Your task to perform on an android device: delete location history Image 0: 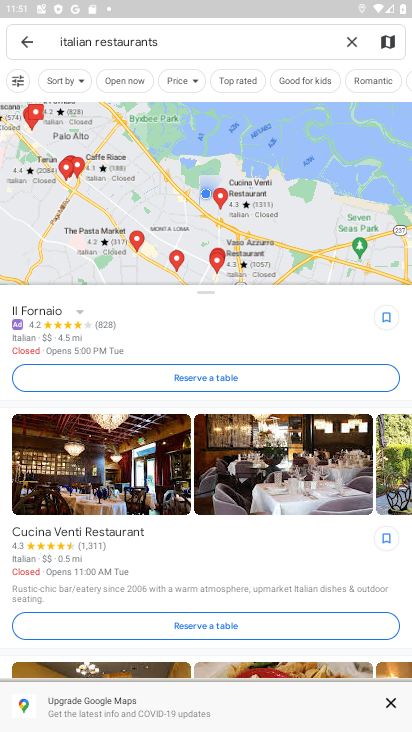
Step 0: click (355, 45)
Your task to perform on an android device: delete location history Image 1: 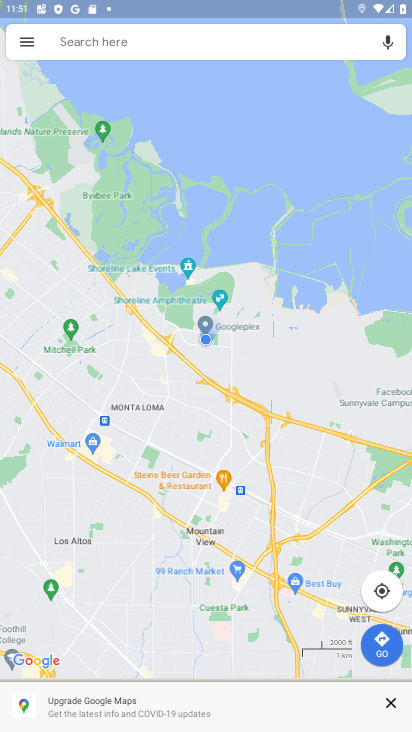
Step 1: click (27, 43)
Your task to perform on an android device: delete location history Image 2: 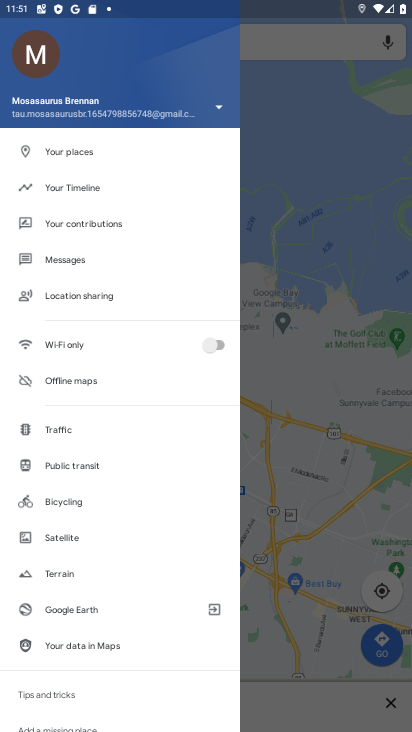
Step 2: click (76, 188)
Your task to perform on an android device: delete location history Image 3: 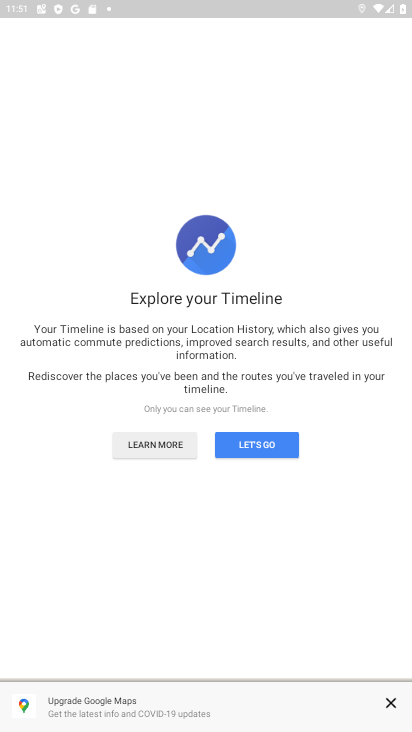
Step 3: click (260, 445)
Your task to perform on an android device: delete location history Image 4: 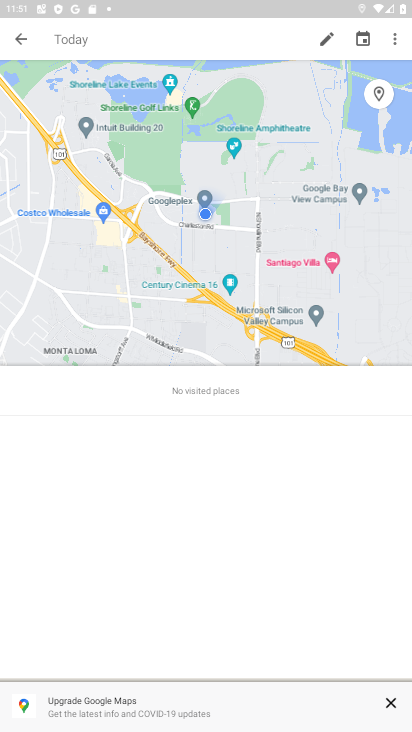
Step 4: click (390, 40)
Your task to perform on an android device: delete location history Image 5: 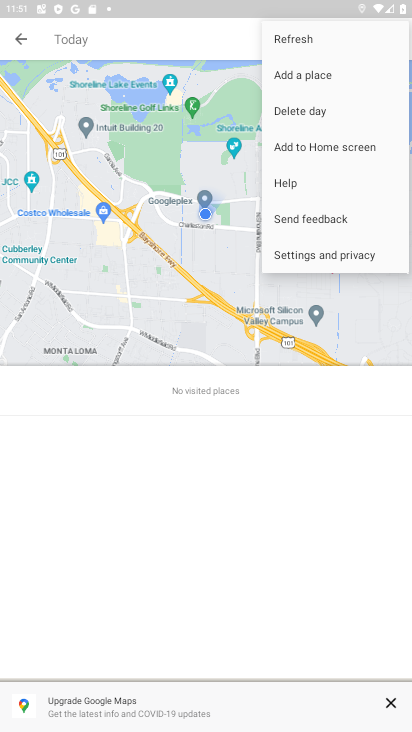
Step 5: click (302, 249)
Your task to perform on an android device: delete location history Image 6: 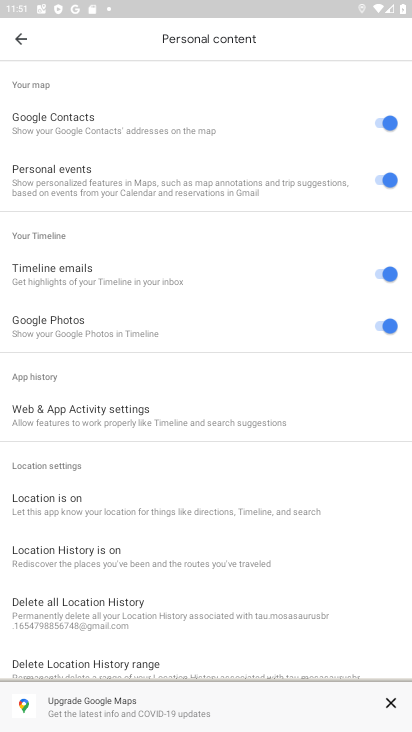
Step 6: click (112, 605)
Your task to perform on an android device: delete location history Image 7: 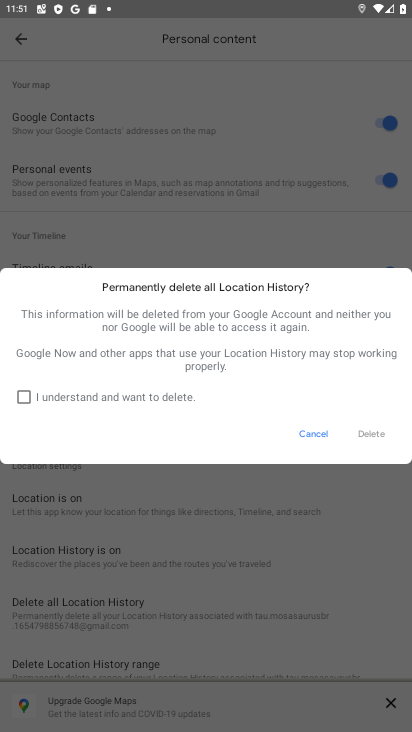
Step 7: click (17, 390)
Your task to perform on an android device: delete location history Image 8: 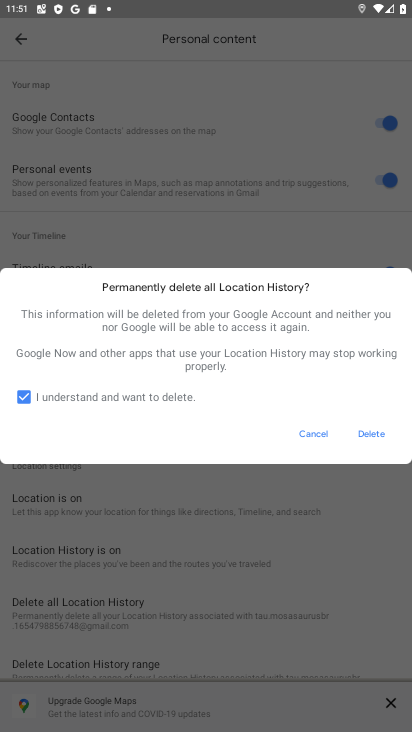
Step 8: click (372, 439)
Your task to perform on an android device: delete location history Image 9: 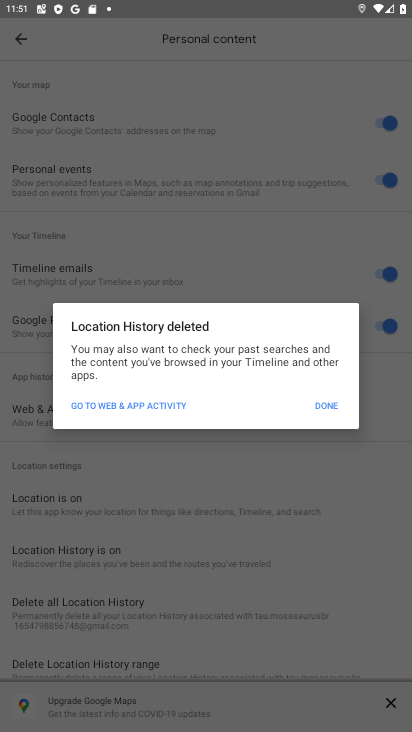
Step 9: click (332, 408)
Your task to perform on an android device: delete location history Image 10: 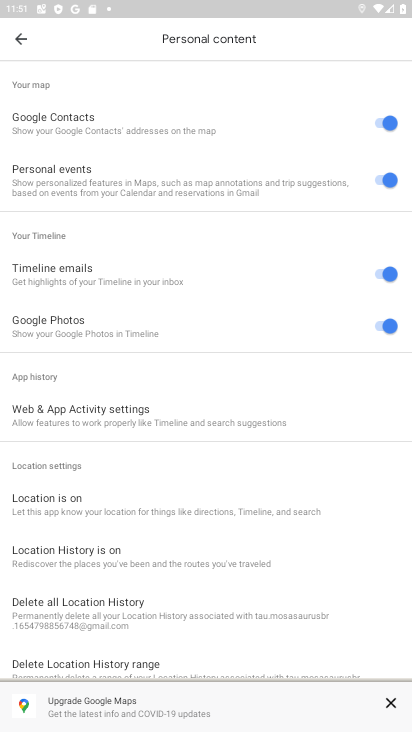
Step 10: task complete